Your task to perform on an android device: turn on javascript in the chrome app Image 0: 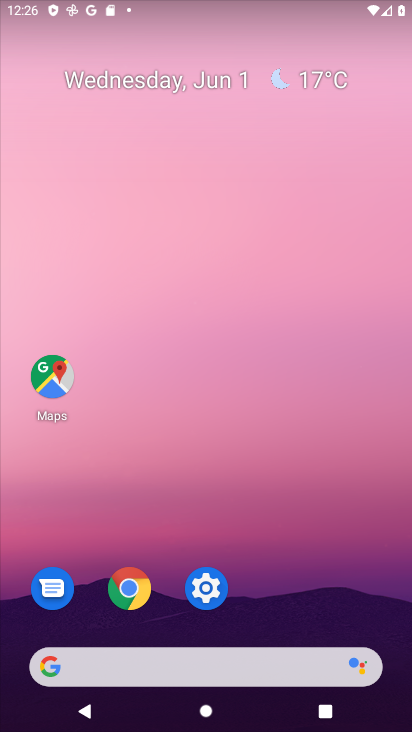
Step 0: click (147, 594)
Your task to perform on an android device: turn on javascript in the chrome app Image 1: 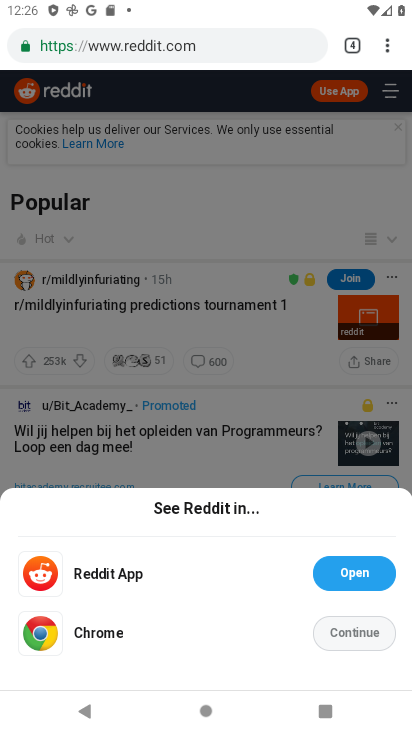
Step 1: click (384, 52)
Your task to perform on an android device: turn on javascript in the chrome app Image 2: 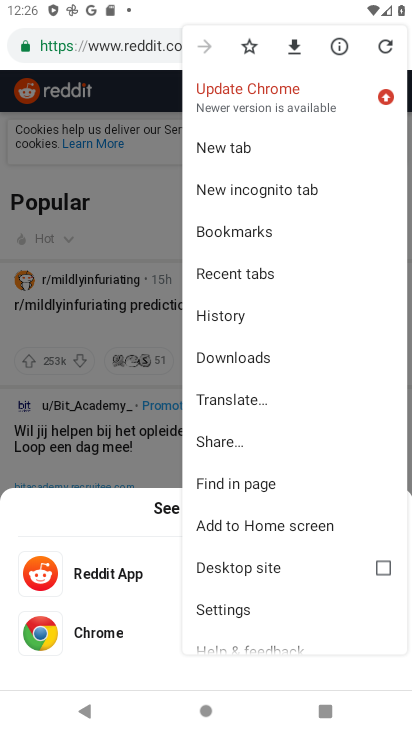
Step 2: click (238, 606)
Your task to perform on an android device: turn on javascript in the chrome app Image 3: 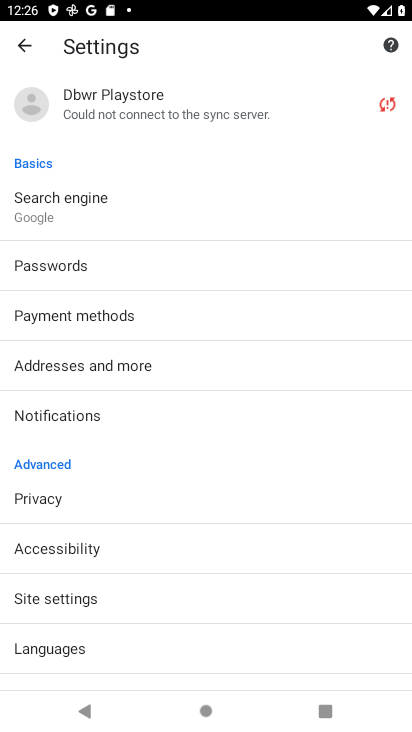
Step 3: click (58, 608)
Your task to perform on an android device: turn on javascript in the chrome app Image 4: 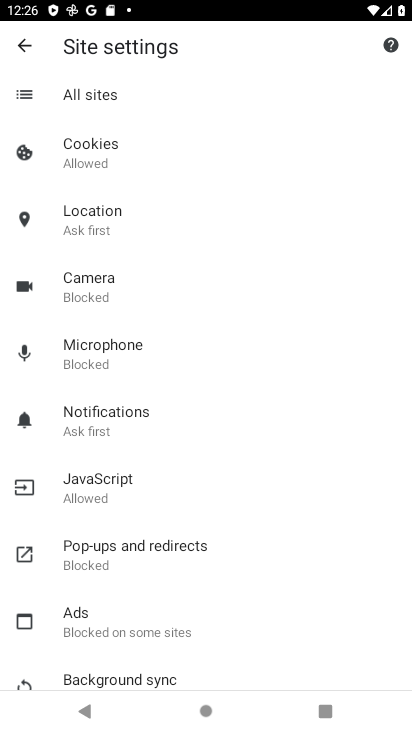
Step 4: click (102, 482)
Your task to perform on an android device: turn on javascript in the chrome app Image 5: 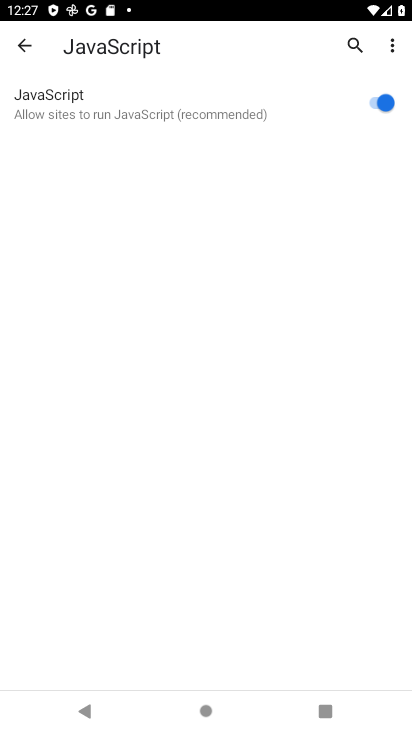
Step 5: click (373, 96)
Your task to perform on an android device: turn on javascript in the chrome app Image 6: 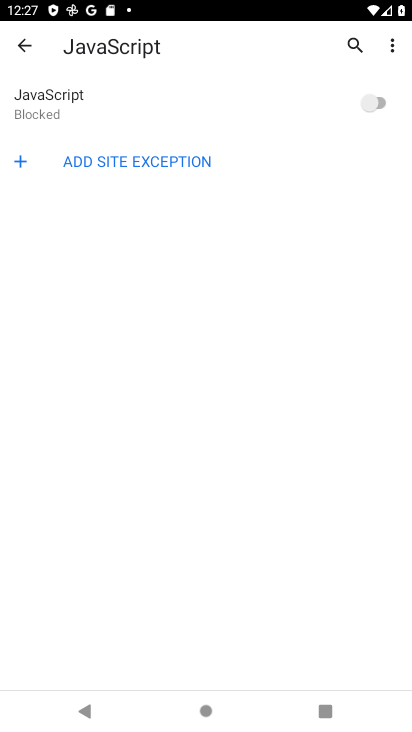
Step 6: click (373, 96)
Your task to perform on an android device: turn on javascript in the chrome app Image 7: 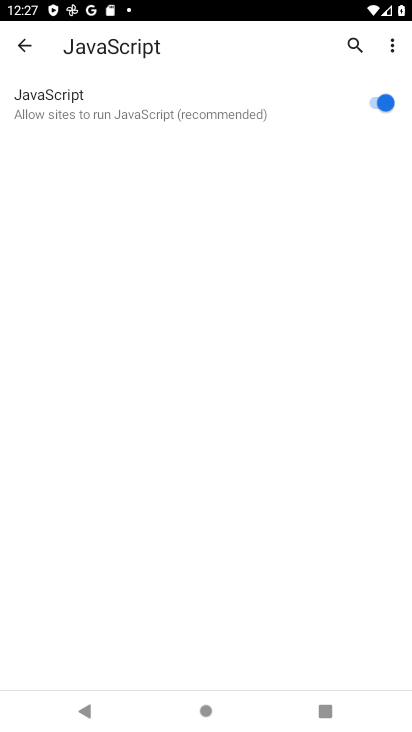
Step 7: task complete